Your task to perform on an android device: See recent photos Image 0: 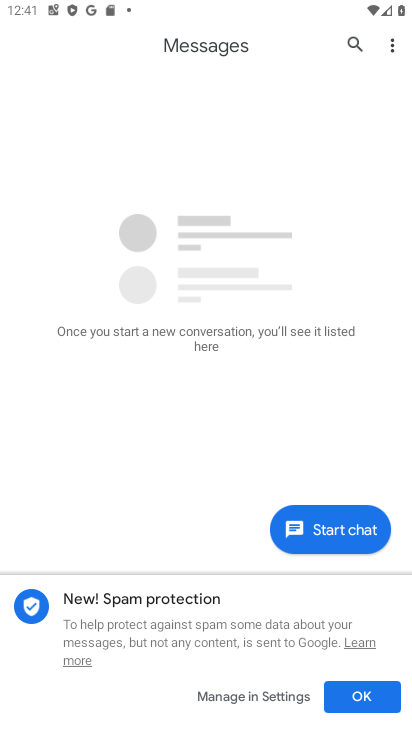
Step 0: press home button
Your task to perform on an android device: See recent photos Image 1: 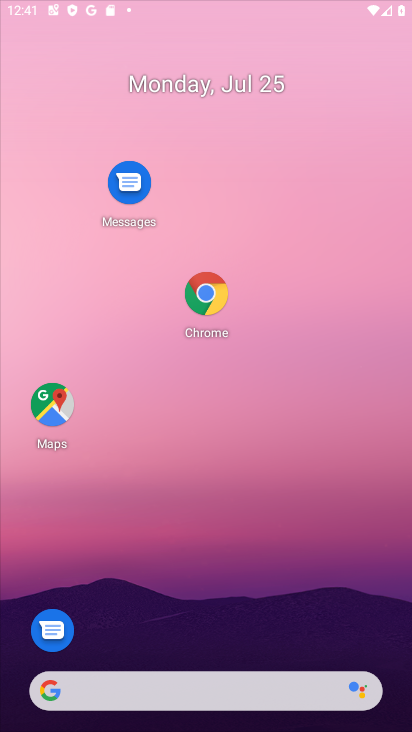
Step 1: drag from (329, 263) to (339, 51)
Your task to perform on an android device: See recent photos Image 2: 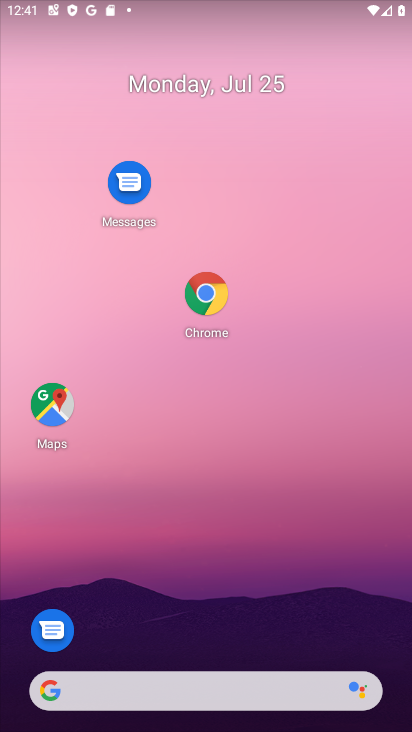
Step 2: drag from (308, 542) to (253, 80)
Your task to perform on an android device: See recent photos Image 3: 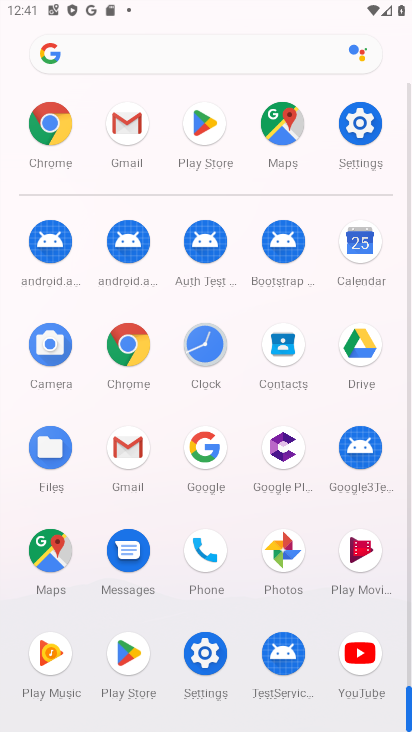
Step 3: click (281, 535)
Your task to perform on an android device: See recent photos Image 4: 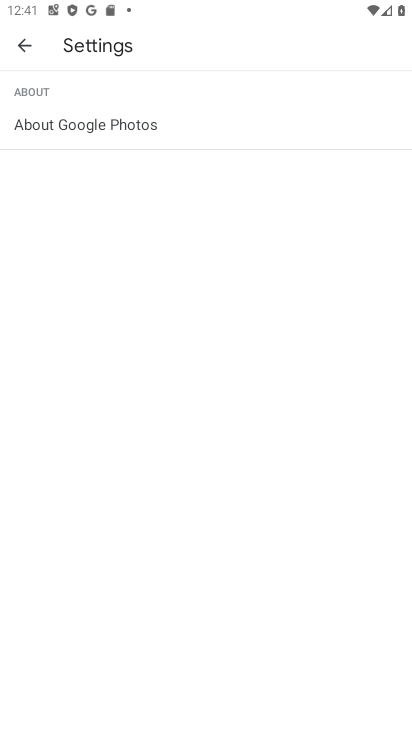
Step 4: click (23, 40)
Your task to perform on an android device: See recent photos Image 5: 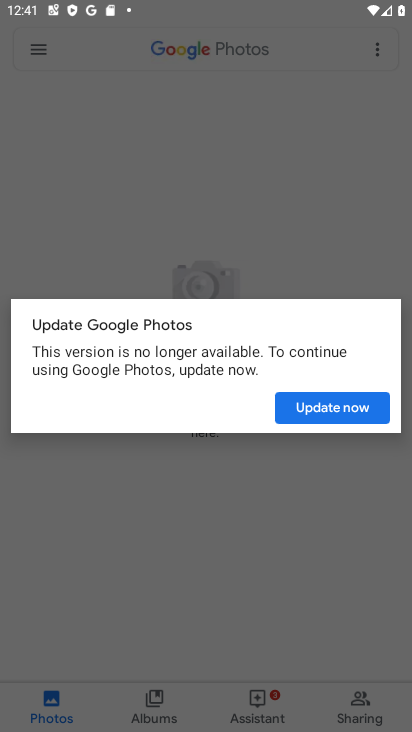
Step 5: click (343, 404)
Your task to perform on an android device: See recent photos Image 6: 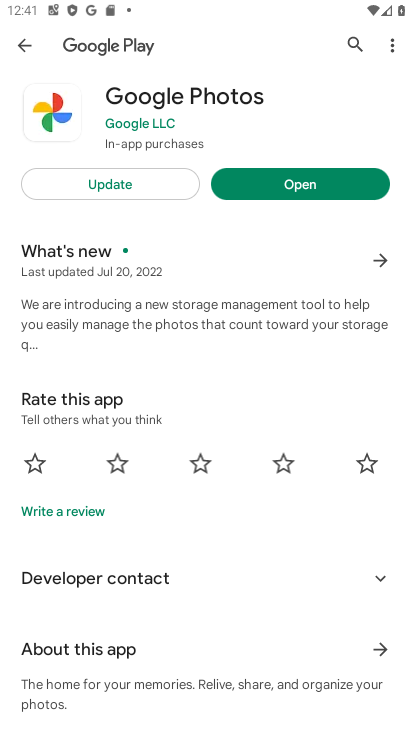
Step 6: click (159, 186)
Your task to perform on an android device: See recent photos Image 7: 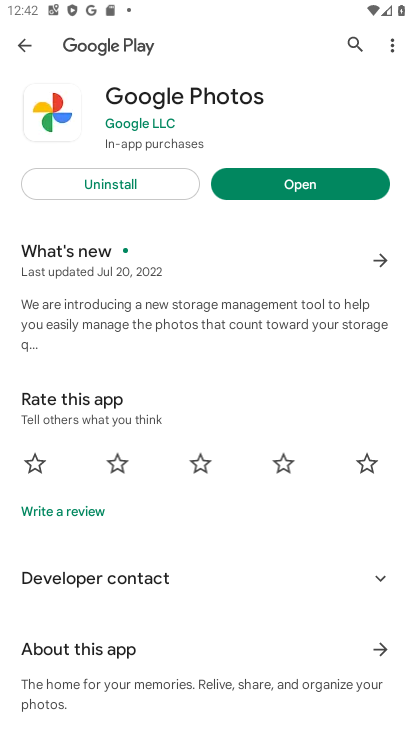
Step 7: click (316, 182)
Your task to perform on an android device: See recent photos Image 8: 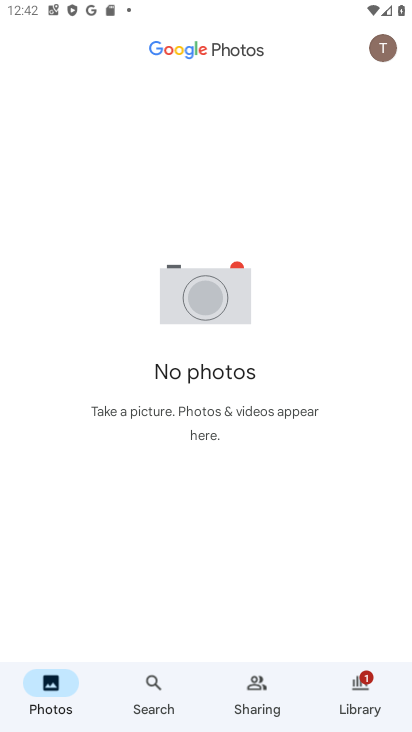
Step 8: click (35, 679)
Your task to perform on an android device: See recent photos Image 9: 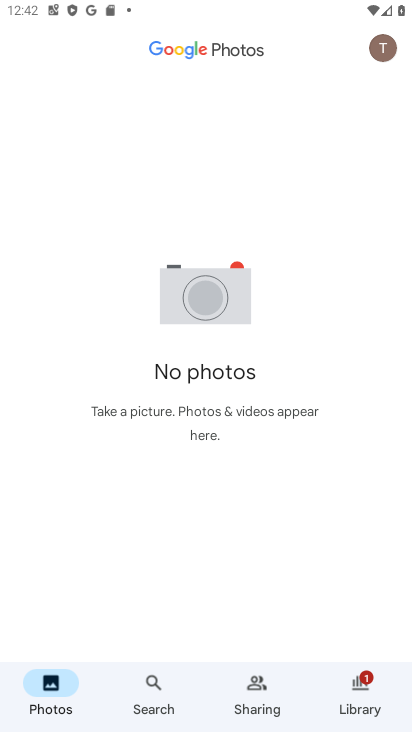
Step 9: task complete